Your task to perform on an android device: change the clock style Image 0: 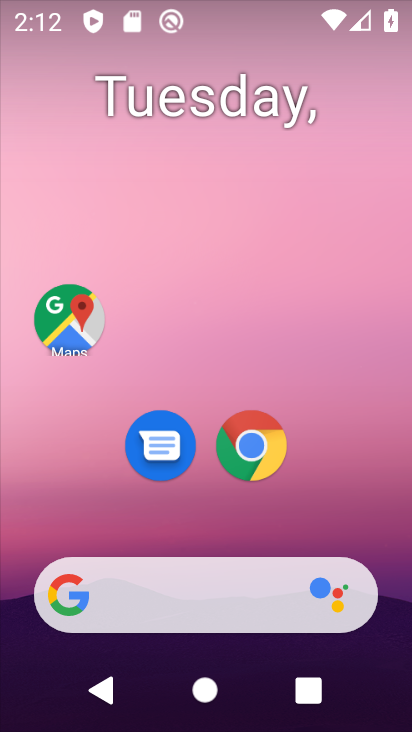
Step 0: drag from (322, 330) to (322, 6)
Your task to perform on an android device: change the clock style Image 1: 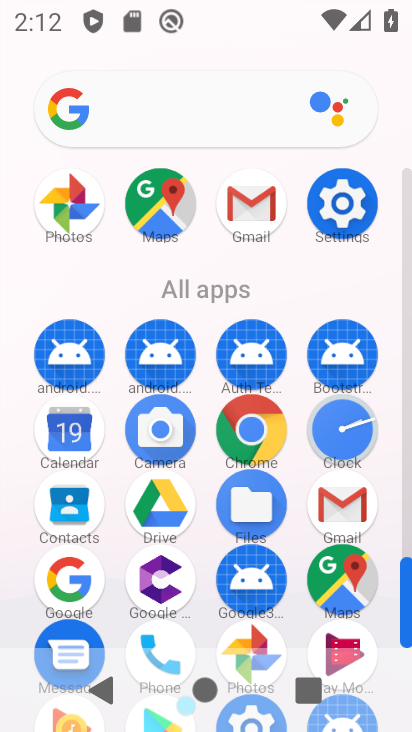
Step 1: click (323, 425)
Your task to perform on an android device: change the clock style Image 2: 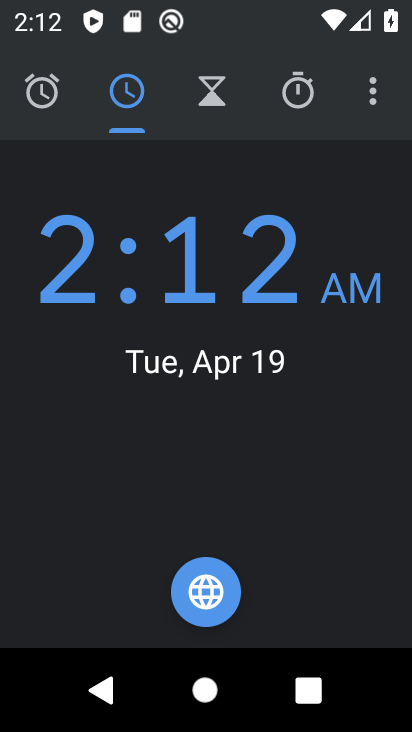
Step 2: click (369, 105)
Your task to perform on an android device: change the clock style Image 3: 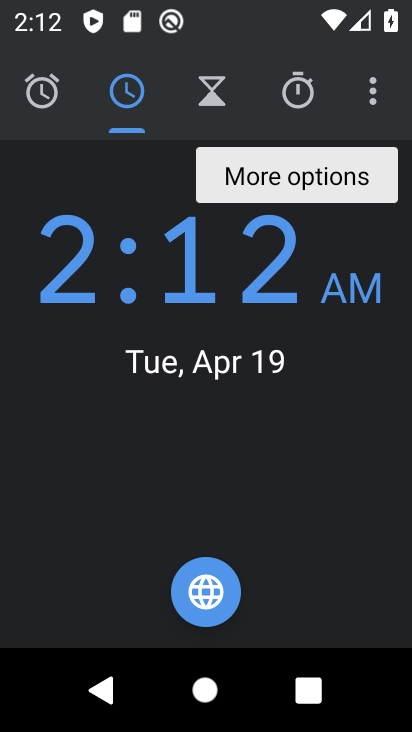
Step 3: click (367, 106)
Your task to perform on an android device: change the clock style Image 4: 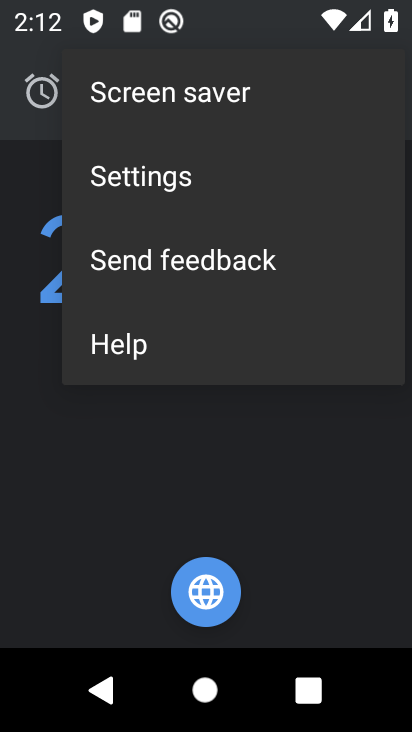
Step 4: click (154, 173)
Your task to perform on an android device: change the clock style Image 5: 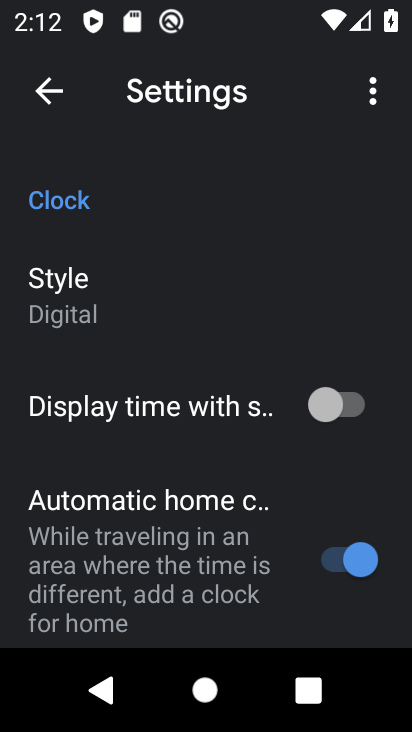
Step 5: click (73, 292)
Your task to perform on an android device: change the clock style Image 6: 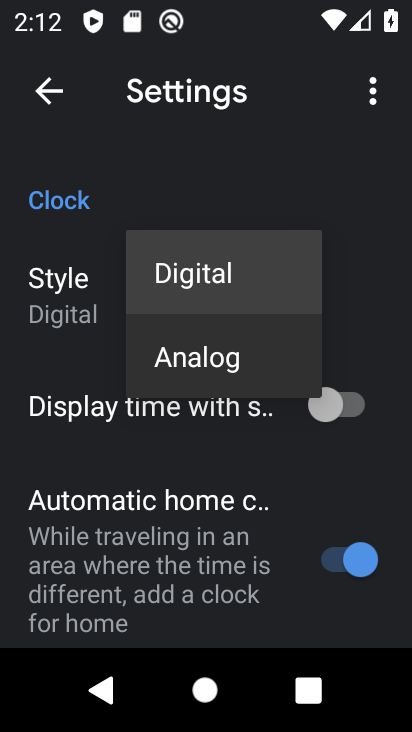
Step 6: click (184, 365)
Your task to perform on an android device: change the clock style Image 7: 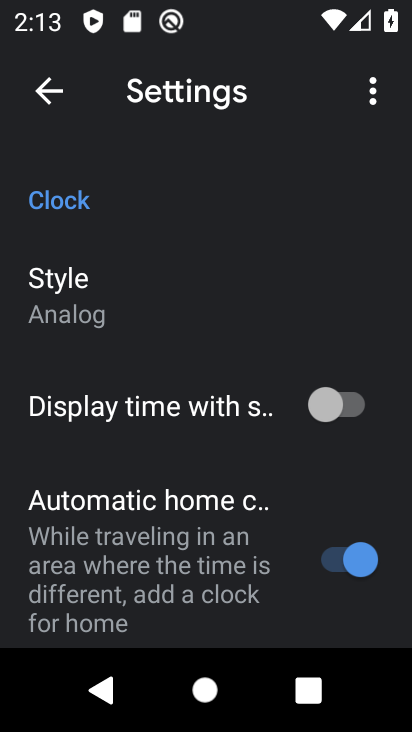
Step 7: task complete